Your task to perform on an android device: open app "Gmail" (install if not already installed) Image 0: 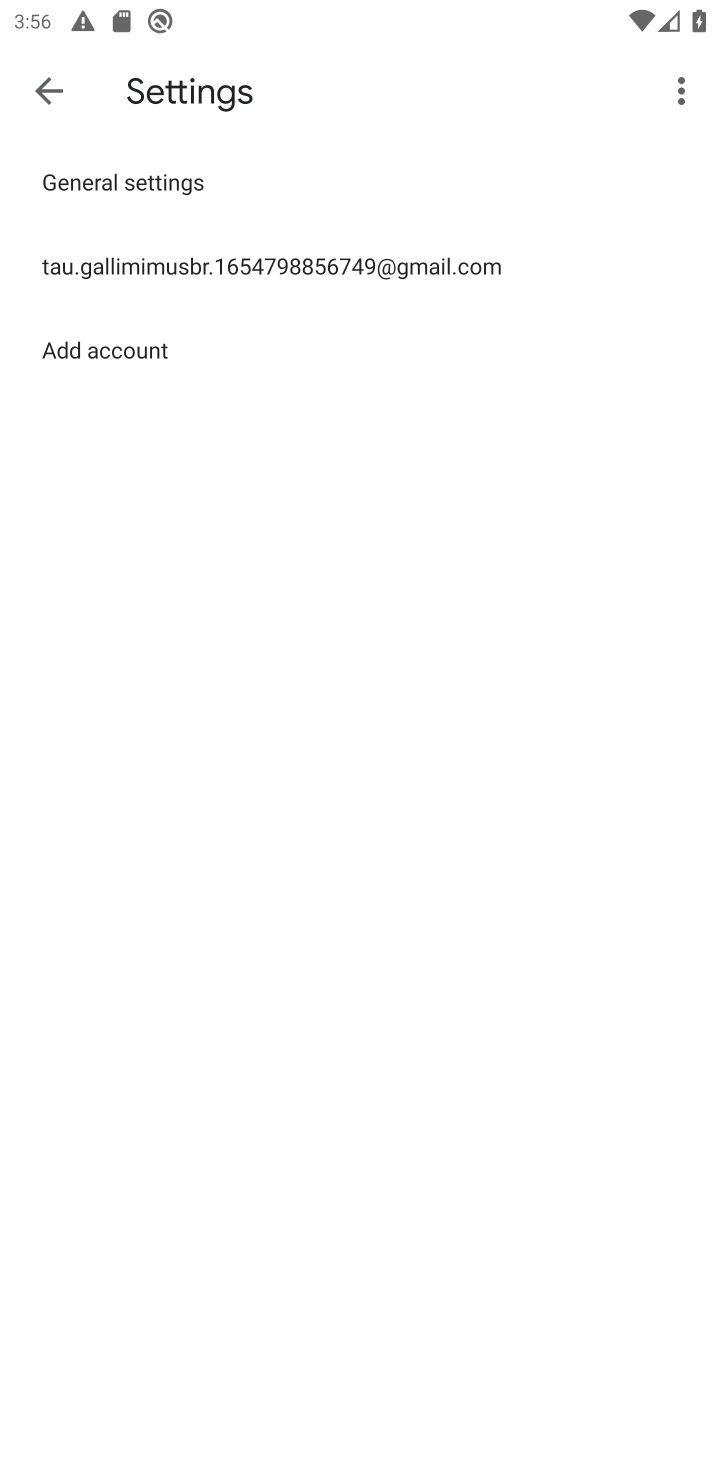
Step 0: press home button
Your task to perform on an android device: open app "Gmail" (install if not already installed) Image 1: 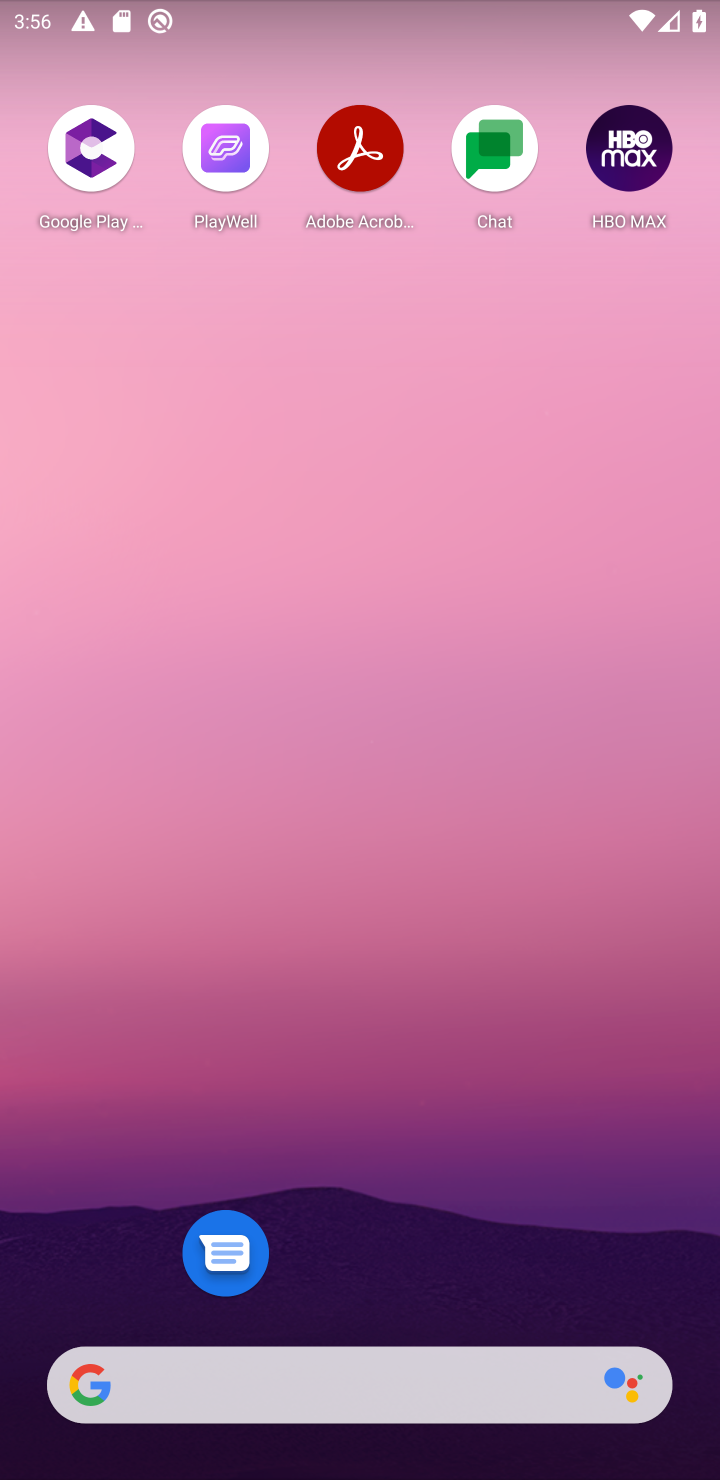
Step 1: drag from (319, 1342) to (339, 482)
Your task to perform on an android device: open app "Gmail" (install if not already installed) Image 2: 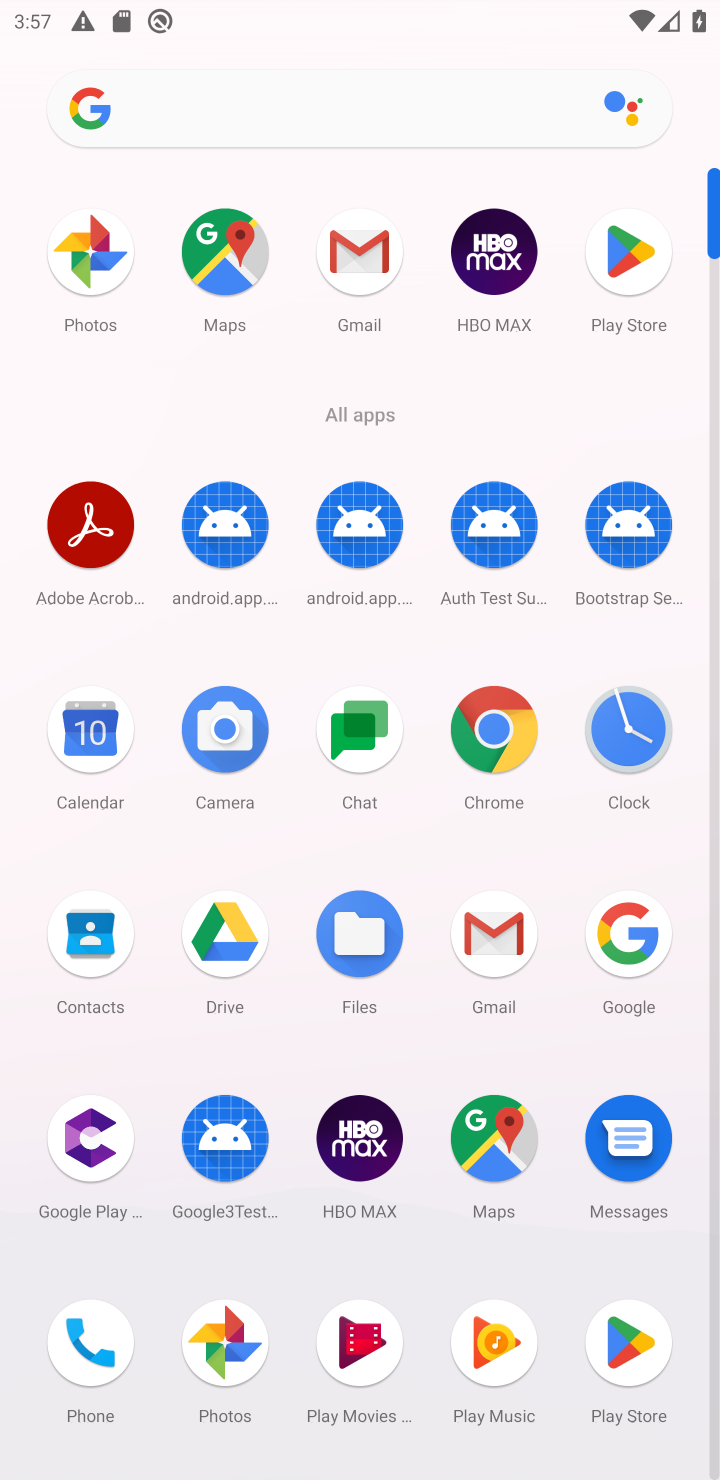
Step 2: click (351, 240)
Your task to perform on an android device: open app "Gmail" (install if not already installed) Image 3: 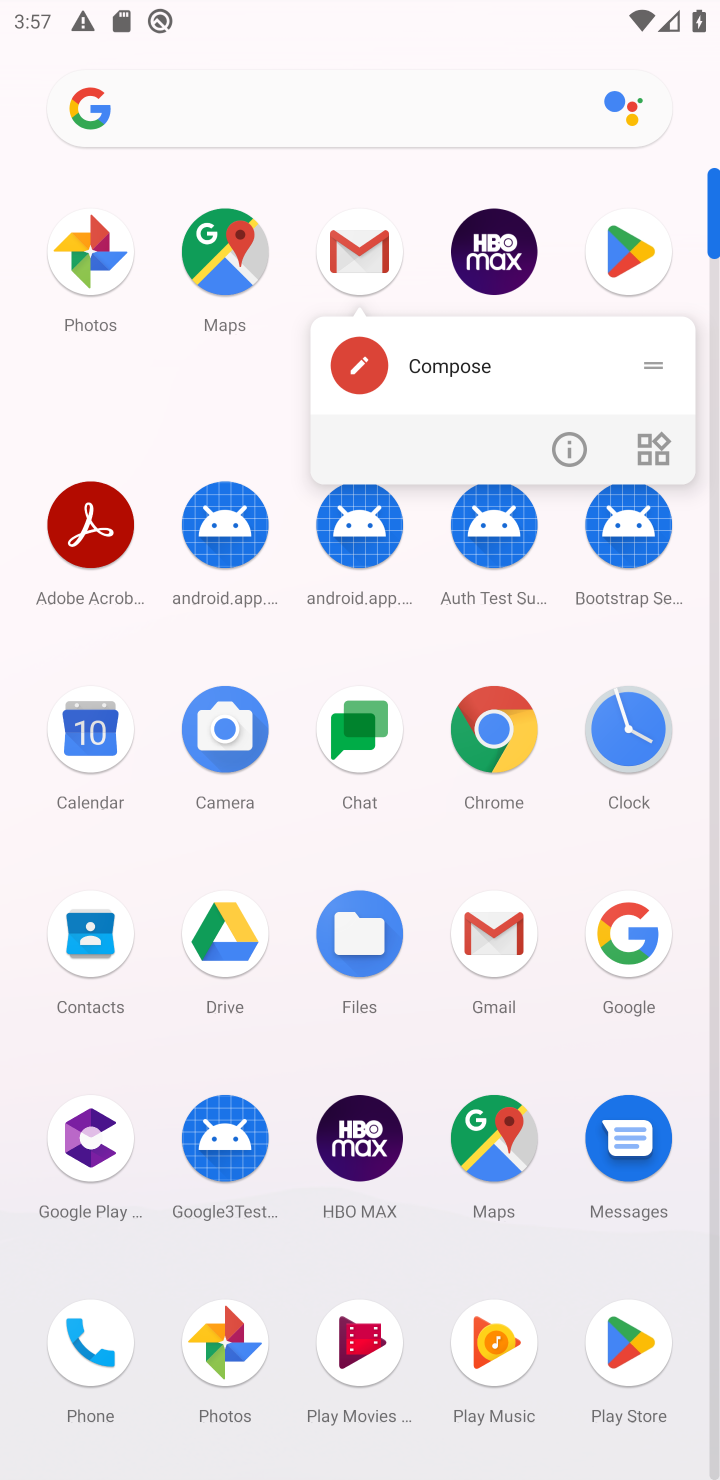
Step 3: click (652, 236)
Your task to perform on an android device: open app "Gmail" (install if not already installed) Image 4: 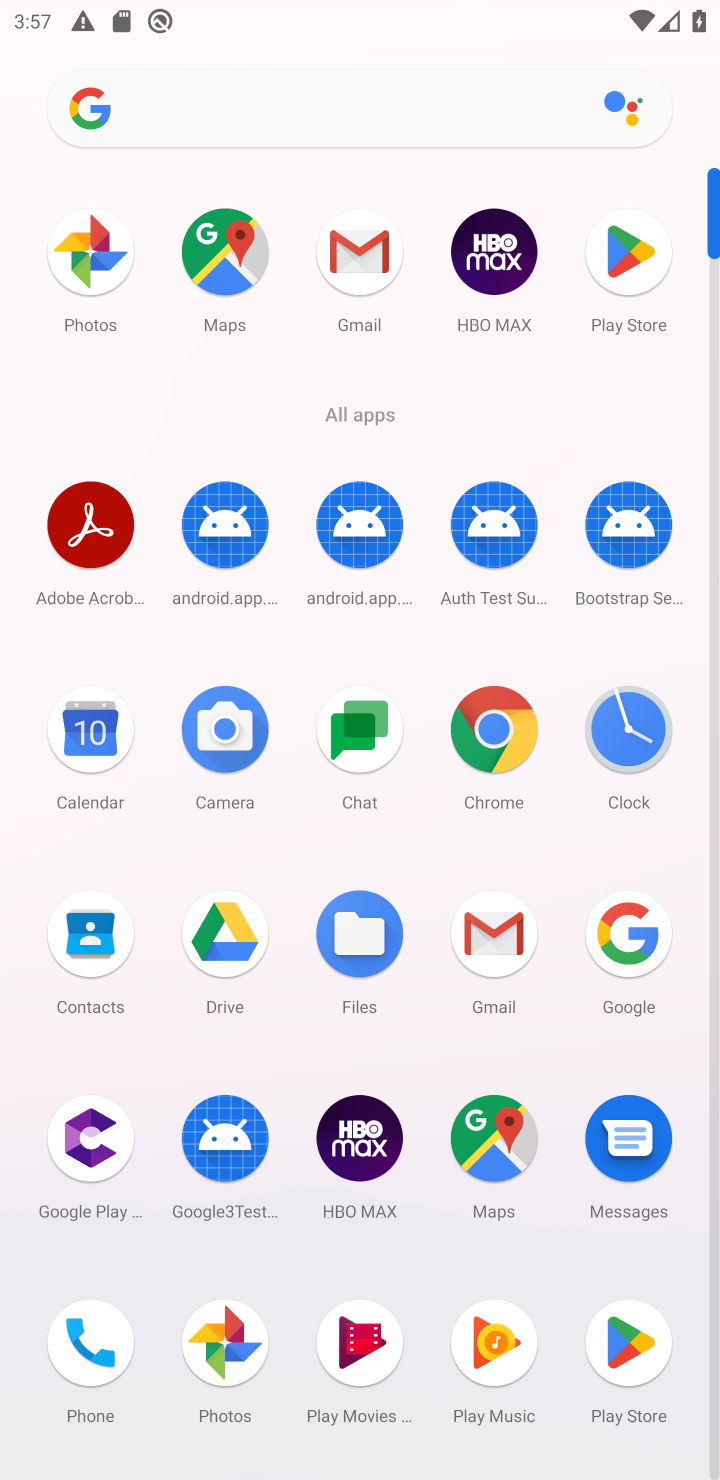
Step 4: click (612, 237)
Your task to perform on an android device: open app "Gmail" (install if not already installed) Image 5: 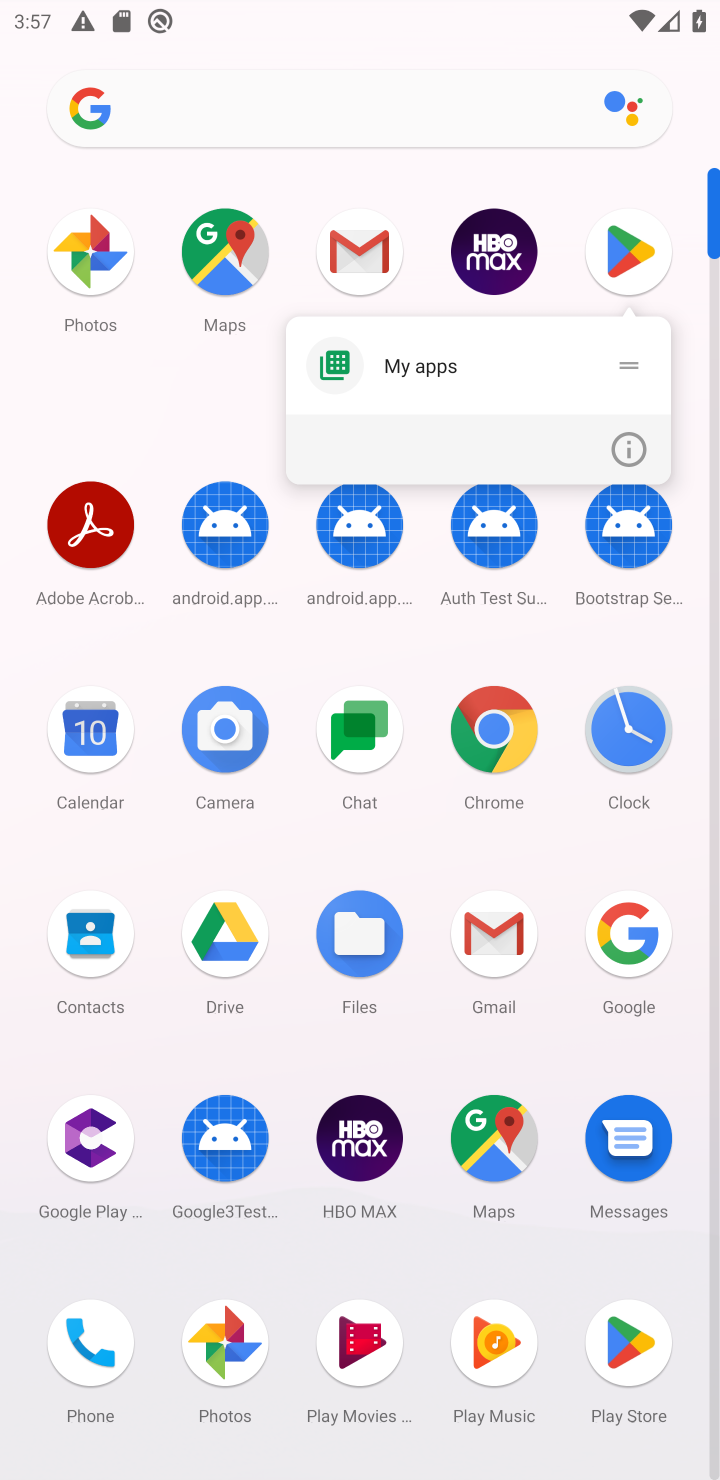
Step 5: click (625, 215)
Your task to perform on an android device: open app "Gmail" (install if not already installed) Image 6: 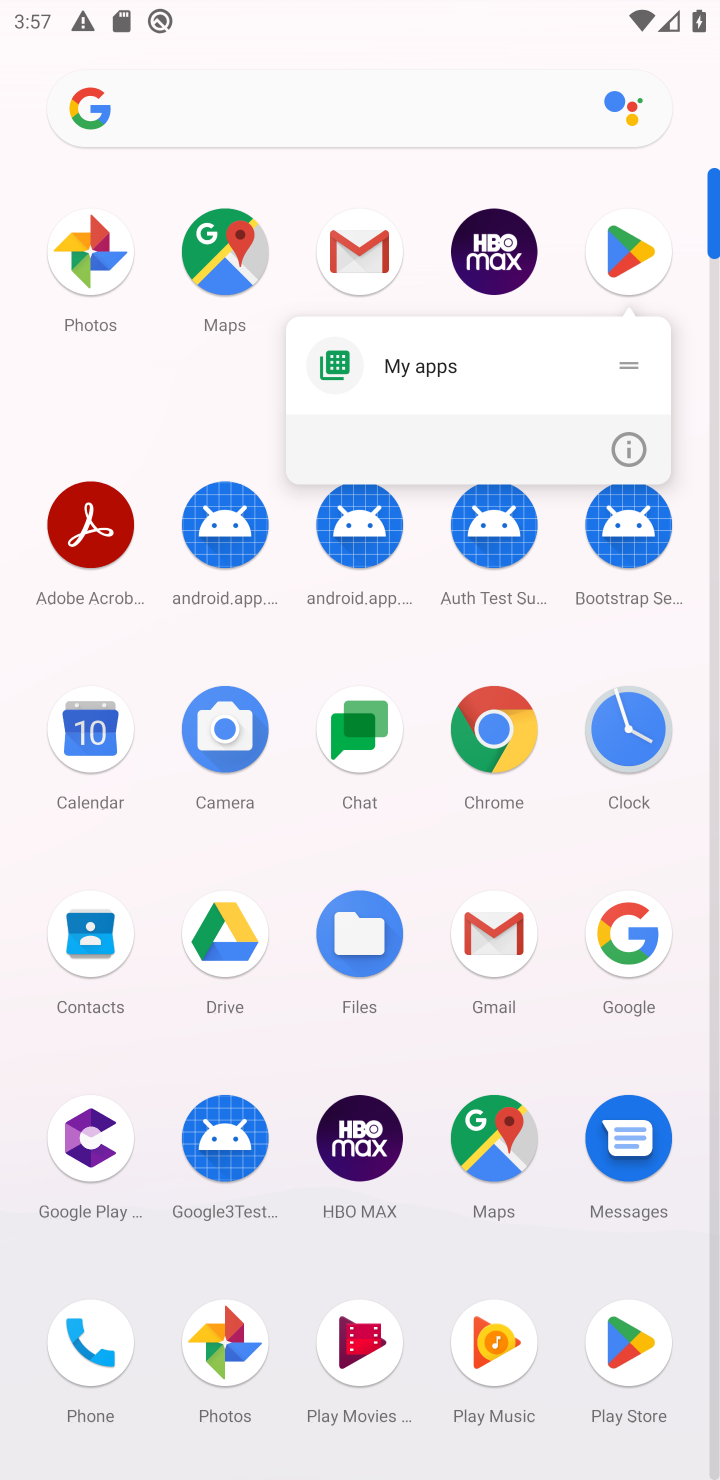
Step 6: click (617, 264)
Your task to perform on an android device: open app "Gmail" (install if not already installed) Image 7: 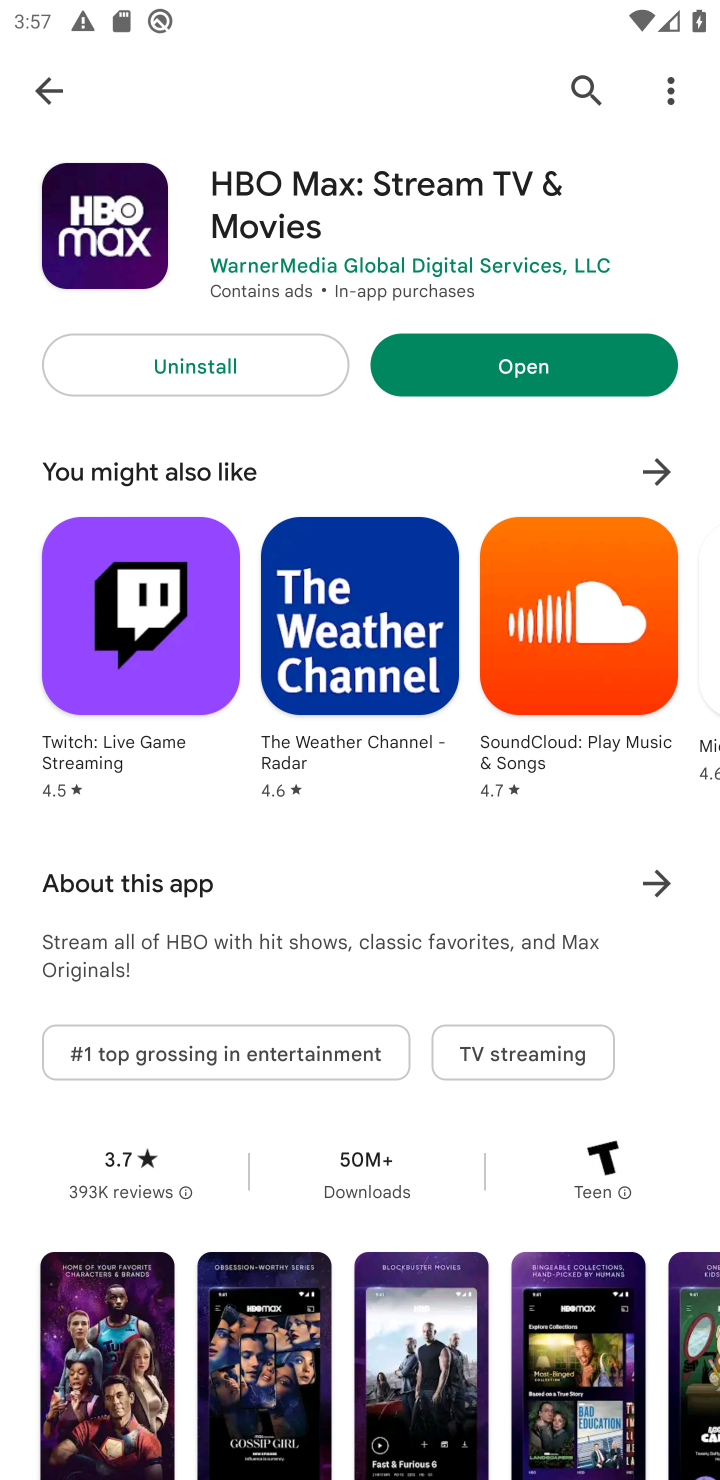
Step 7: click (45, 67)
Your task to perform on an android device: open app "Gmail" (install if not already installed) Image 8: 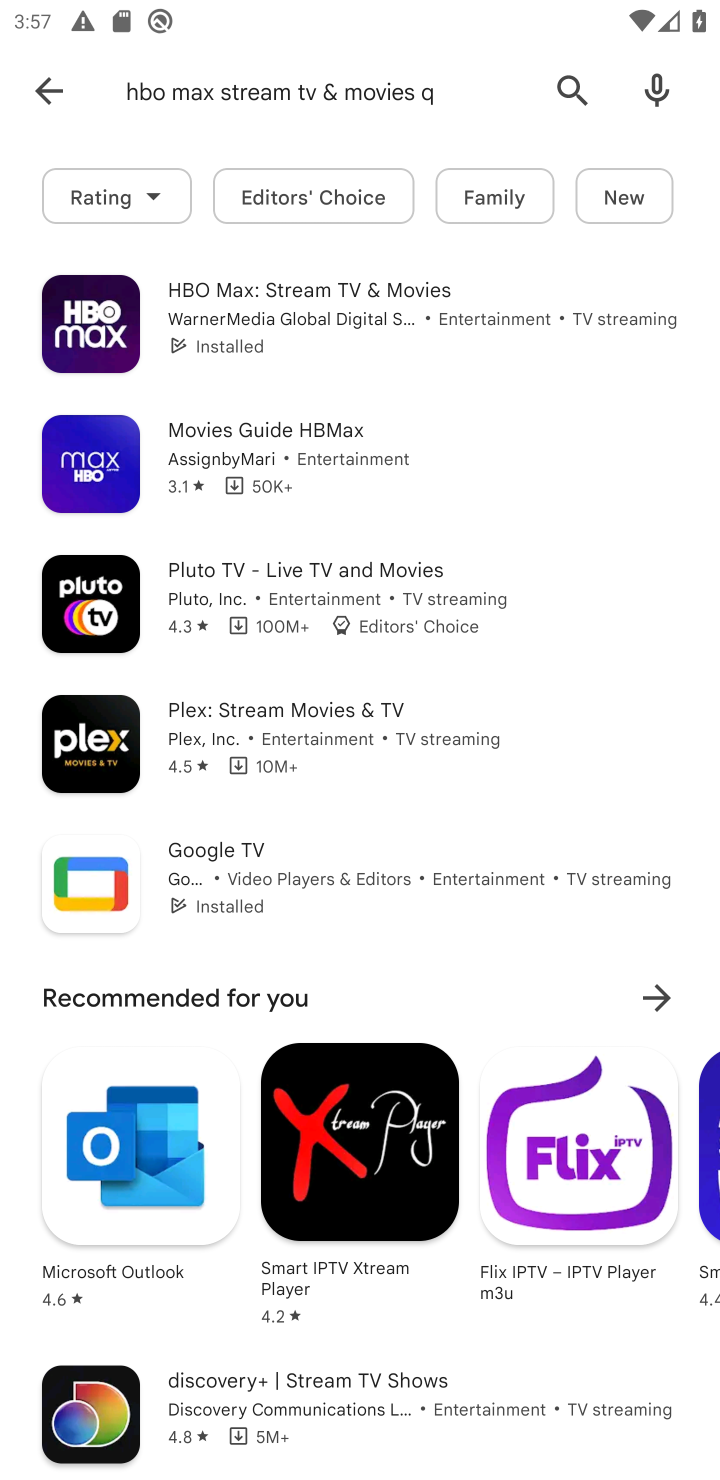
Step 8: click (553, 89)
Your task to perform on an android device: open app "Gmail" (install if not already installed) Image 9: 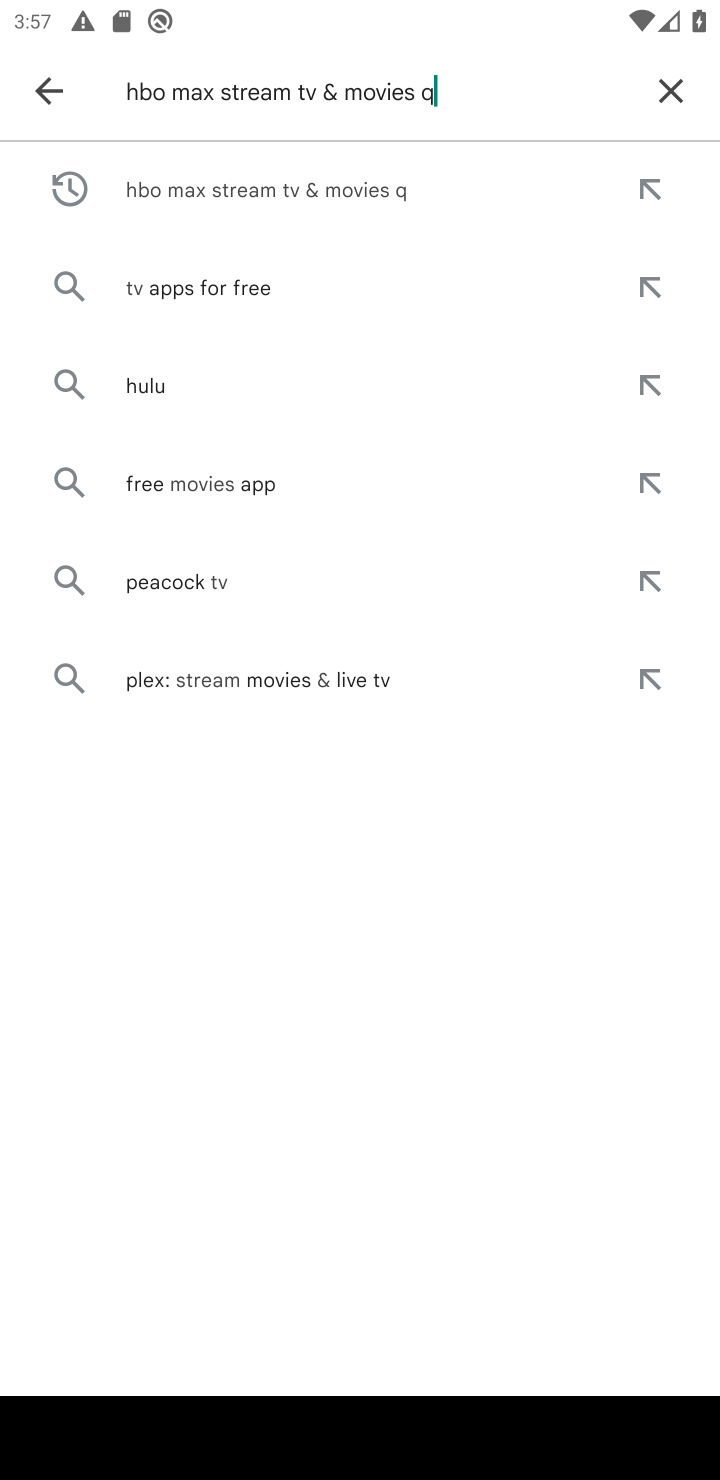
Step 9: click (672, 77)
Your task to perform on an android device: open app "Gmail" (install if not already installed) Image 10: 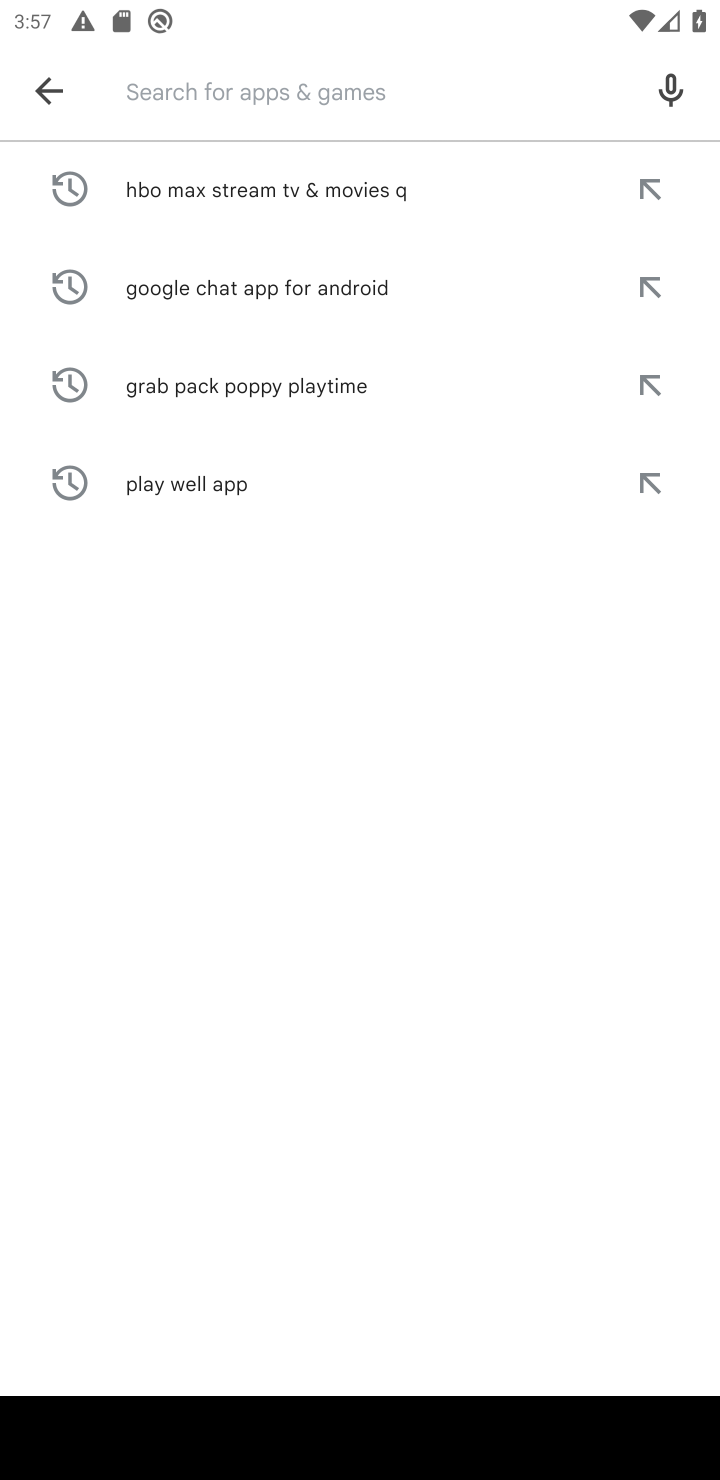
Step 10: click (297, 82)
Your task to perform on an android device: open app "Gmail" (install if not already installed) Image 11: 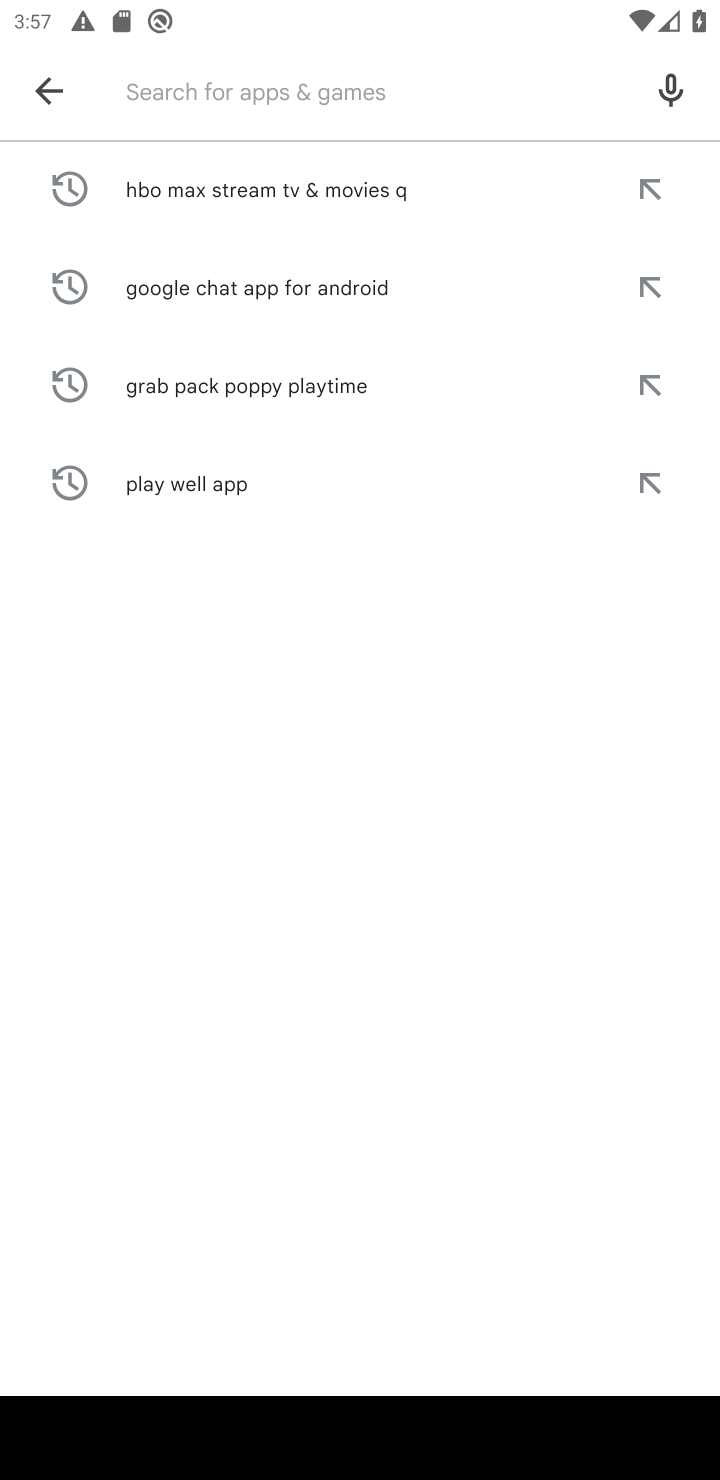
Step 11: type "gmail "
Your task to perform on an android device: open app "Gmail" (install if not already installed) Image 12: 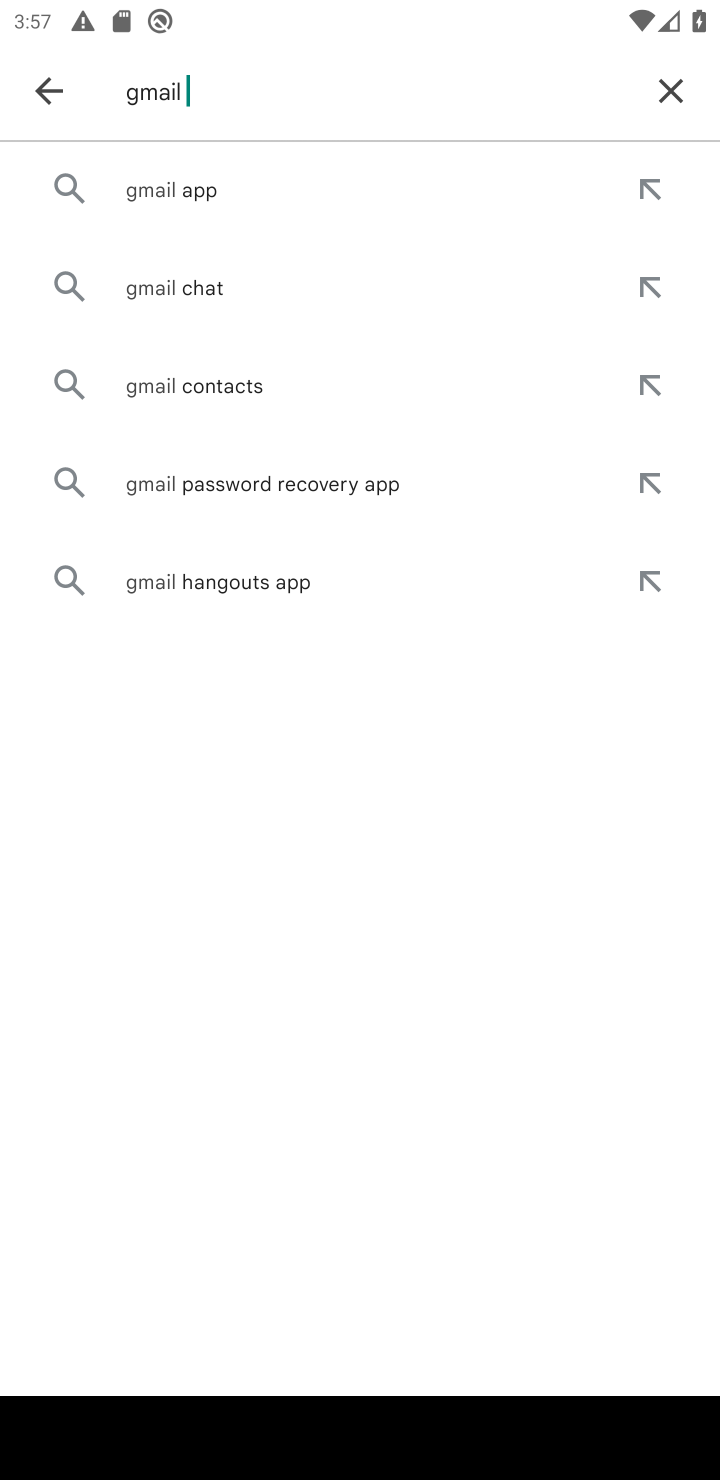
Step 12: click (166, 176)
Your task to perform on an android device: open app "Gmail" (install if not already installed) Image 13: 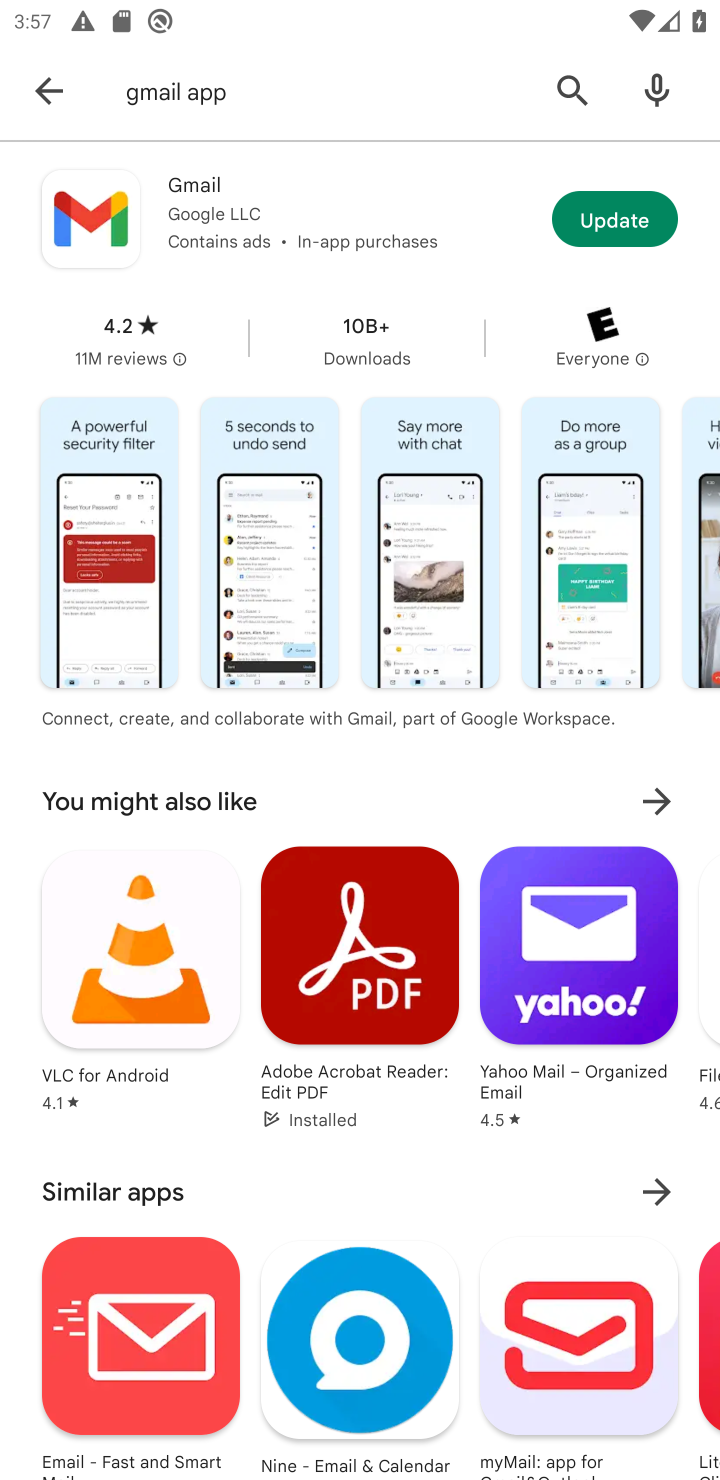
Step 13: click (622, 222)
Your task to perform on an android device: open app "Gmail" (install if not already installed) Image 14: 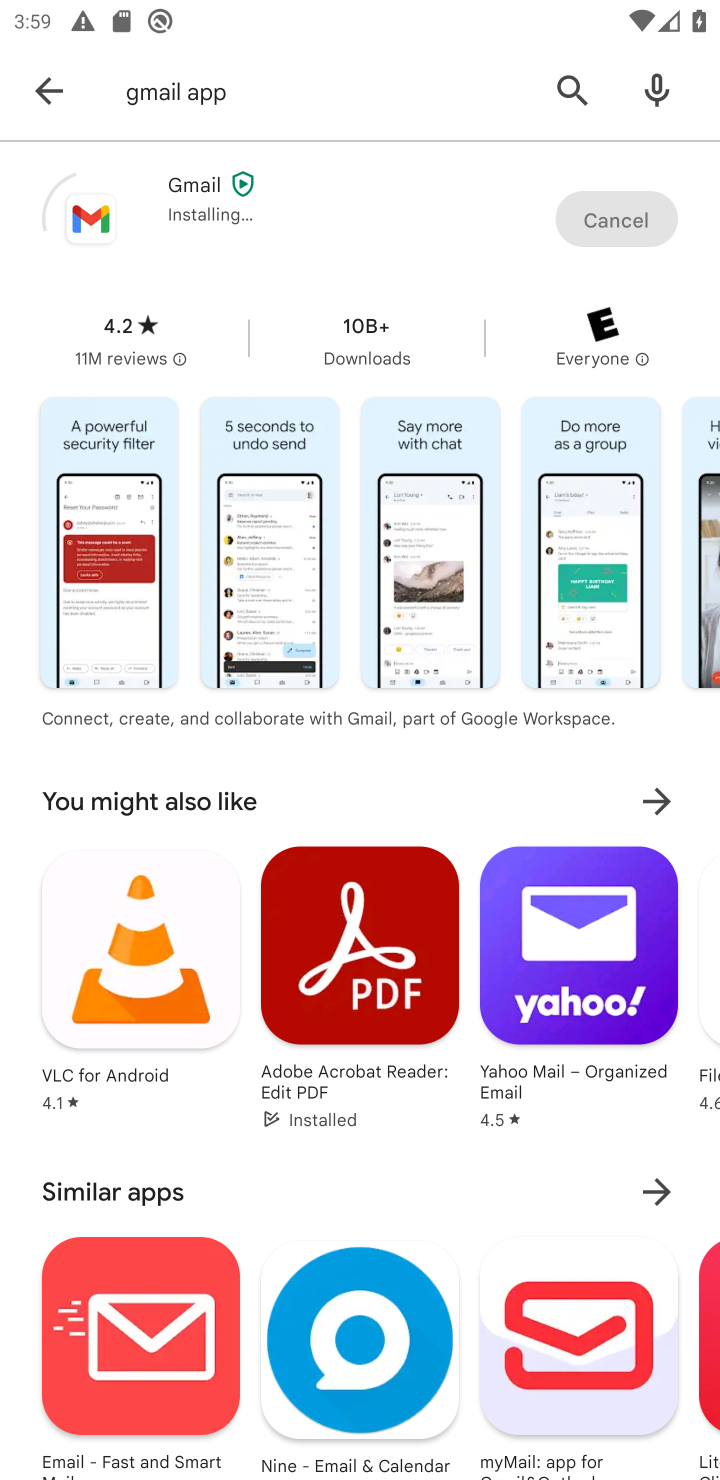
Step 14: click (324, 196)
Your task to perform on an android device: open app "Gmail" (install if not already installed) Image 15: 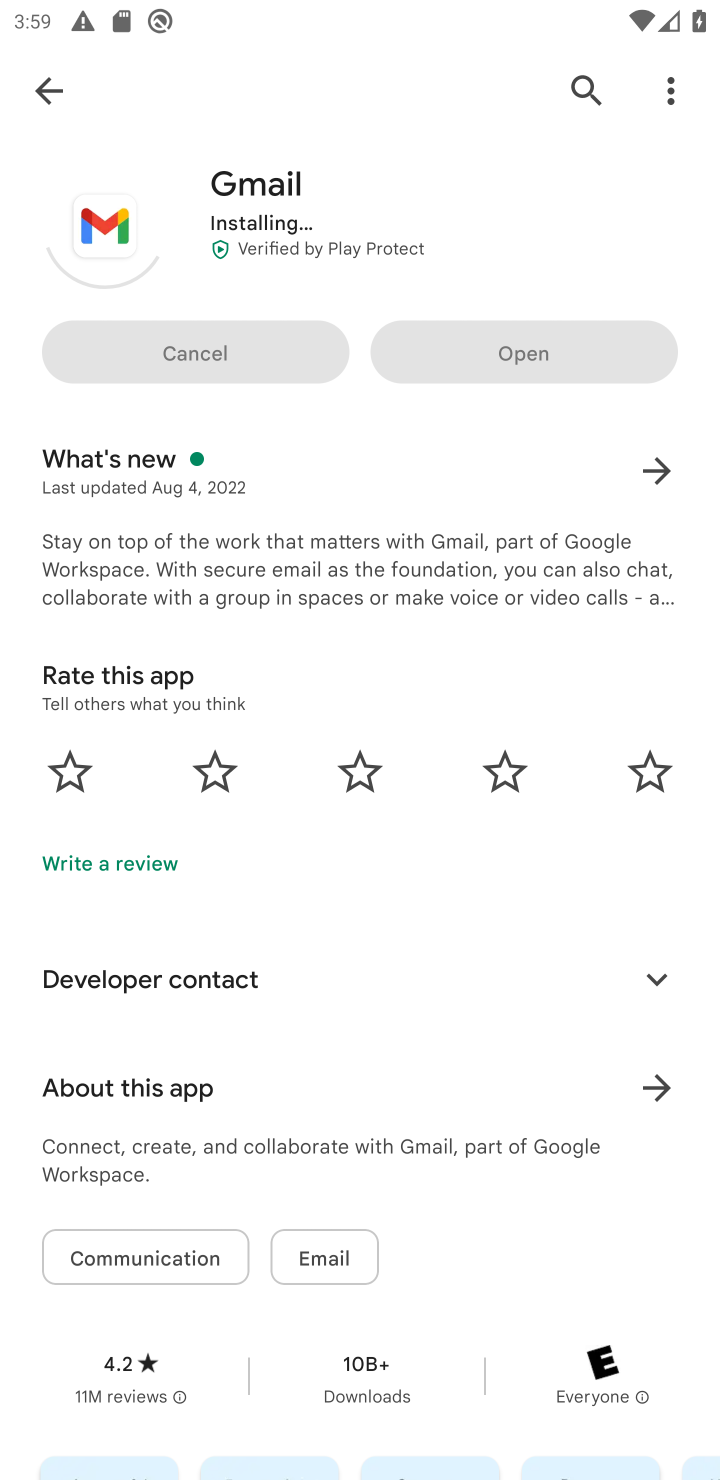
Step 15: click (564, 343)
Your task to perform on an android device: open app "Gmail" (install if not already installed) Image 16: 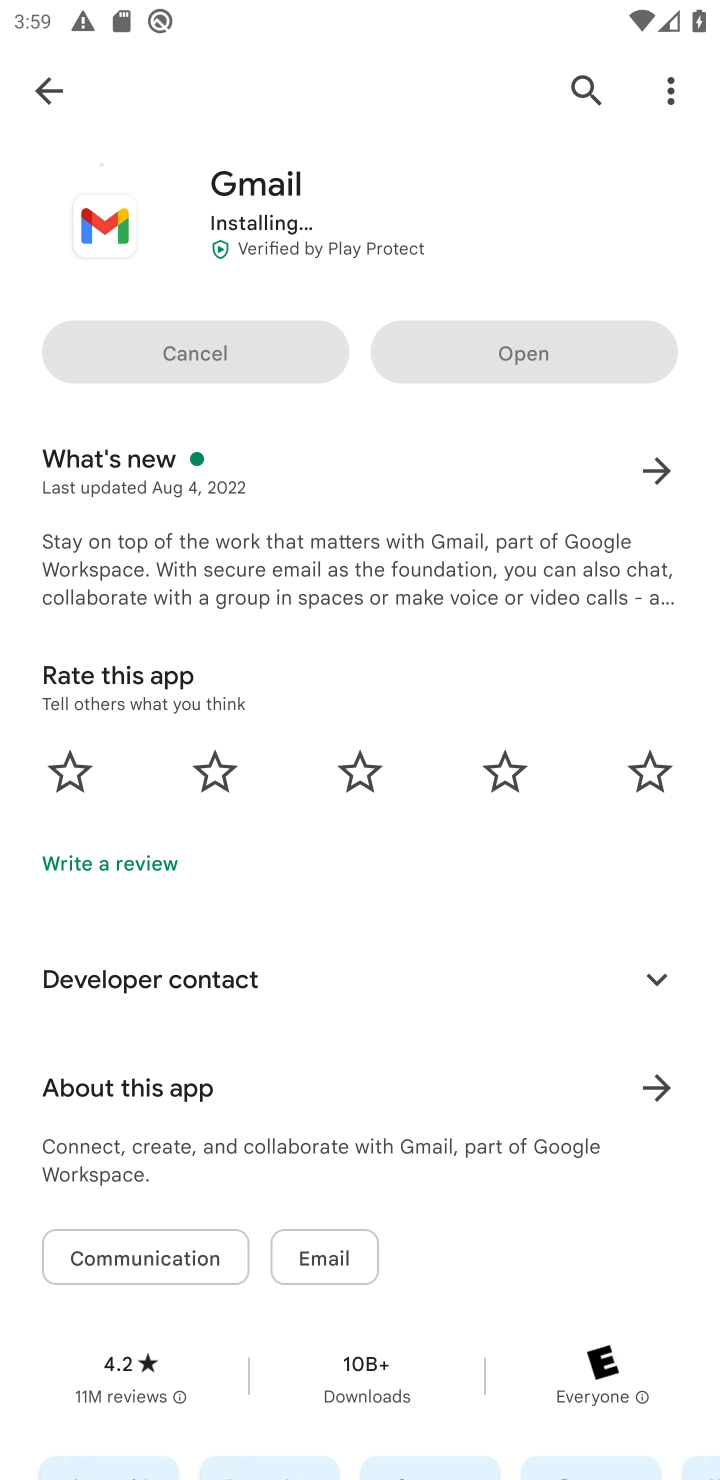
Step 16: task complete